Your task to perform on an android device: check data usage Image 0: 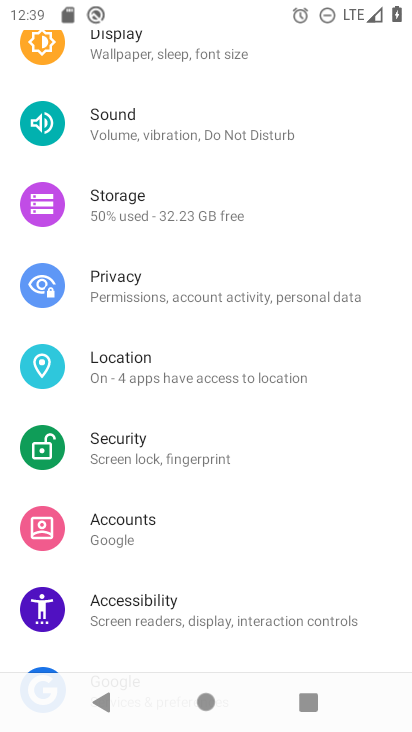
Step 0: press home button
Your task to perform on an android device: check data usage Image 1: 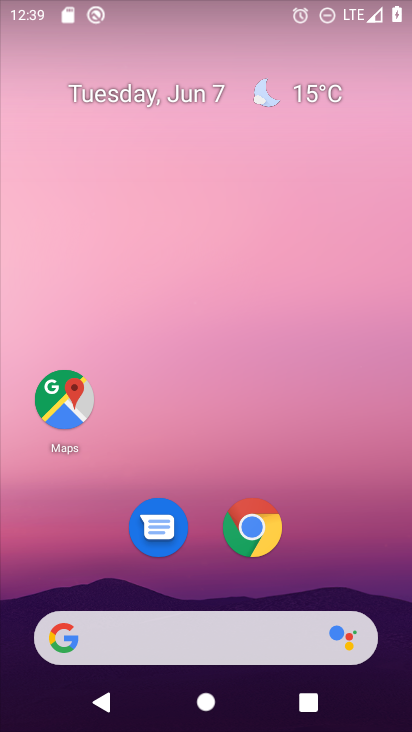
Step 1: drag from (363, 536) to (367, 122)
Your task to perform on an android device: check data usage Image 2: 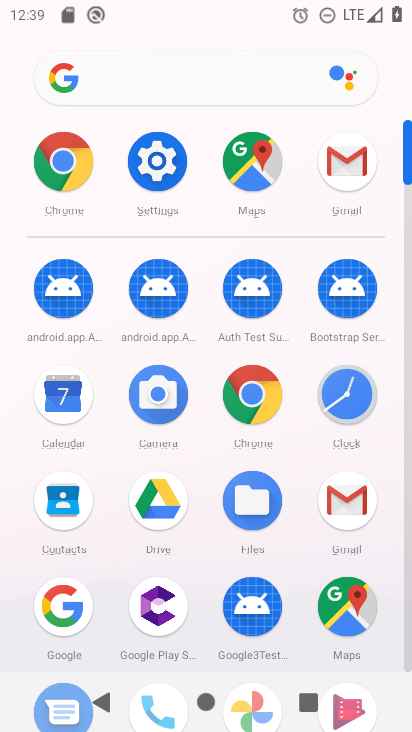
Step 2: click (160, 170)
Your task to perform on an android device: check data usage Image 3: 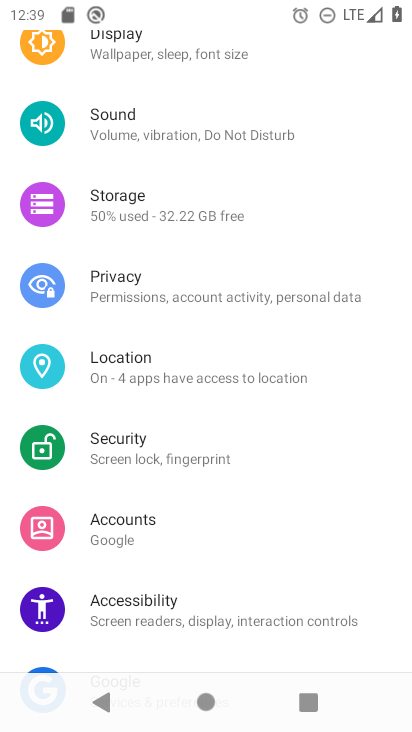
Step 3: drag from (325, 488) to (332, 298)
Your task to perform on an android device: check data usage Image 4: 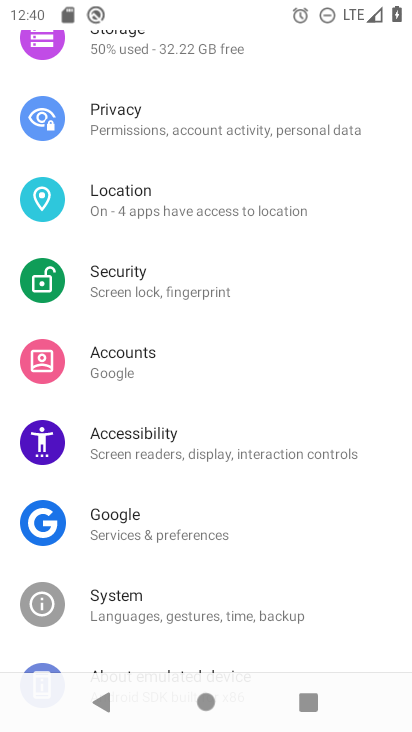
Step 4: drag from (328, 531) to (337, 366)
Your task to perform on an android device: check data usage Image 5: 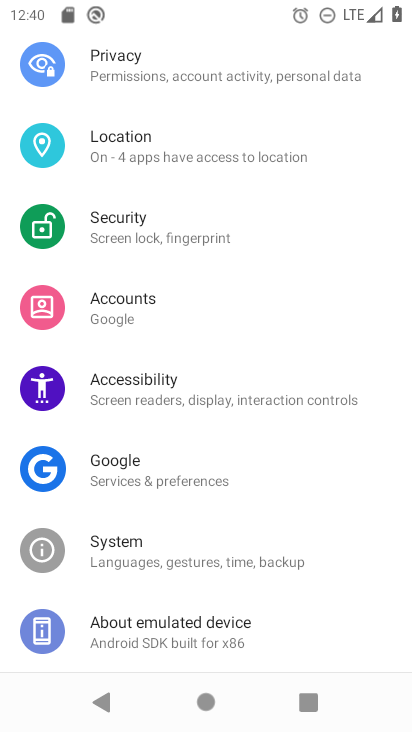
Step 5: drag from (356, 249) to (370, 384)
Your task to perform on an android device: check data usage Image 6: 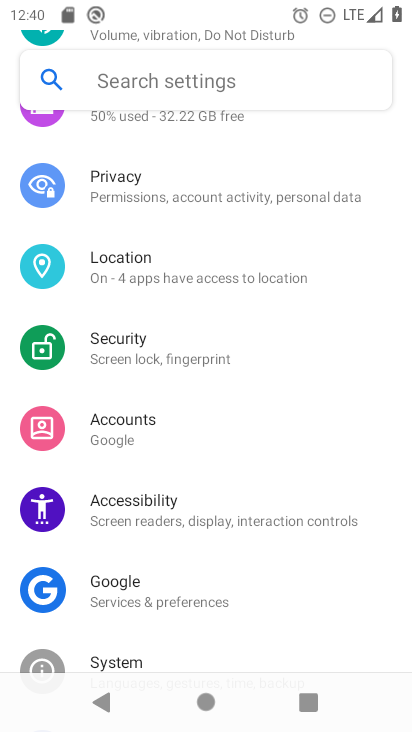
Step 6: drag from (371, 219) to (375, 359)
Your task to perform on an android device: check data usage Image 7: 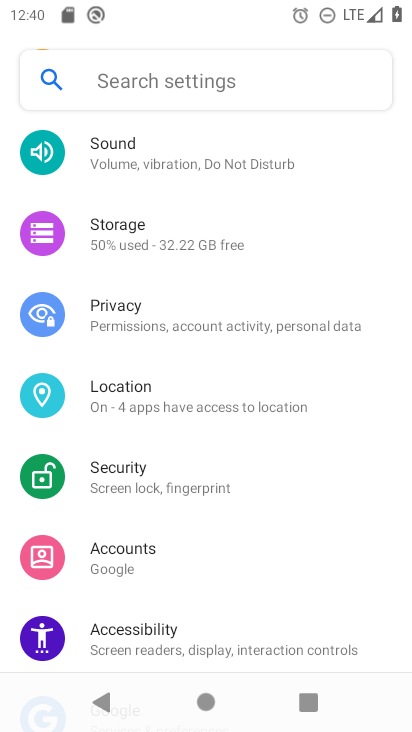
Step 7: drag from (351, 199) to (358, 382)
Your task to perform on an android device: check data usage Image 8: 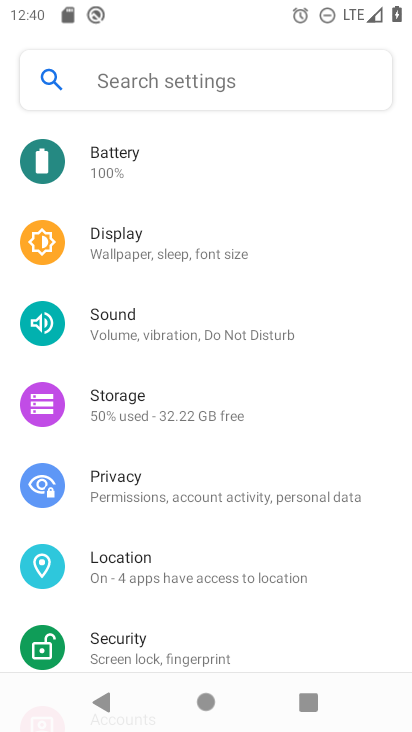
Step 8: drag from (344, 247) to (348, 331)
Your task to perform on an android device: check data usage Image 9: 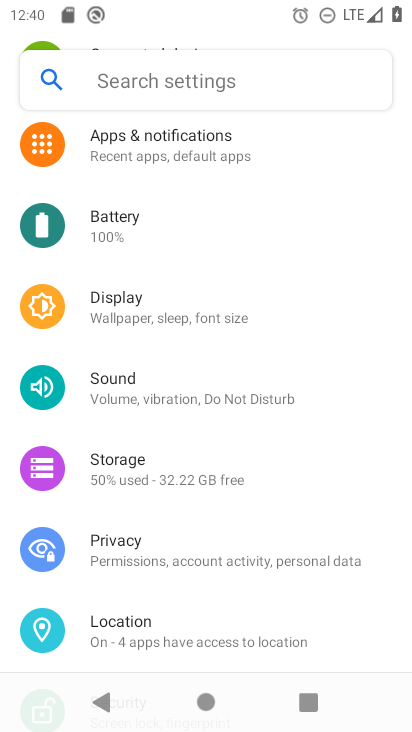
Step 9: drag from (338, 245) to (340, 392)
Your task to perform on an android device: check data usage Image 10: 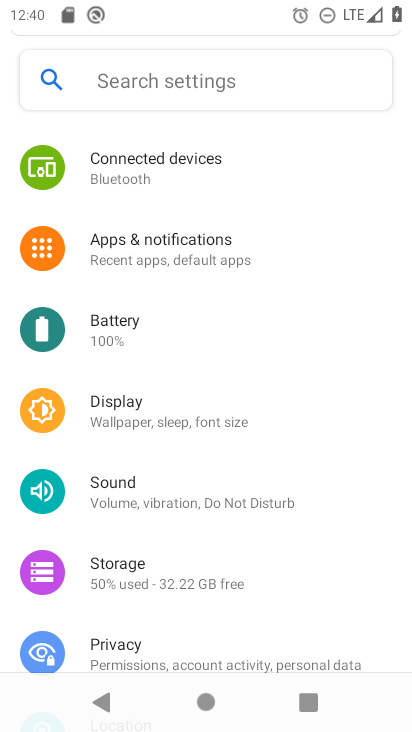
Step 10: drag from (341, 215) to (340, 364)
Your task to perform on an android device: check data usage Image 11: 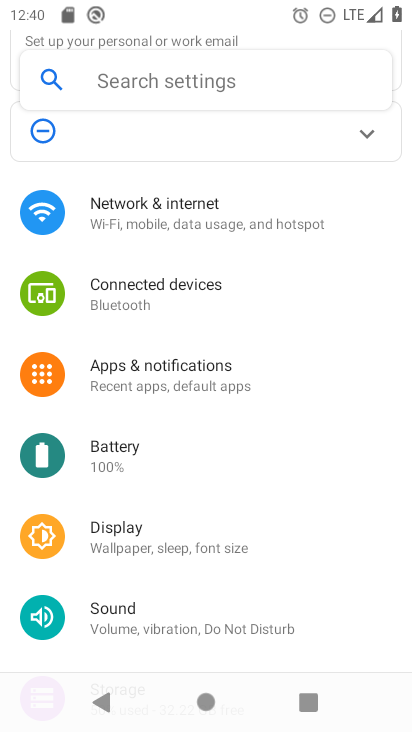
Step 11: click (306, 209)
Your task to perform on an android device: check data usage Image 12: 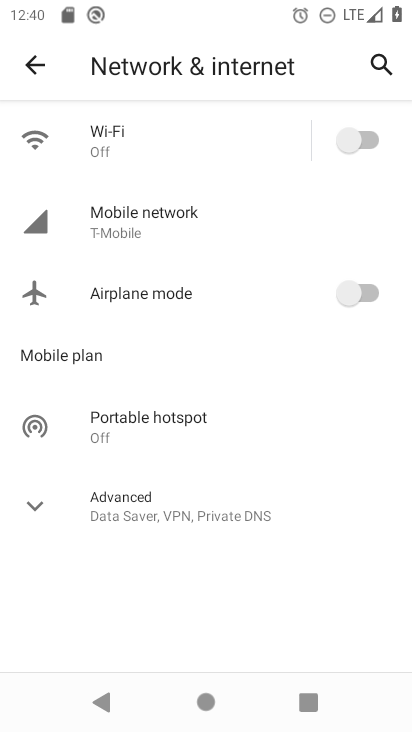
Step 12: click (165, 227)
Your task to perform on an android device: check data usage Image 13: 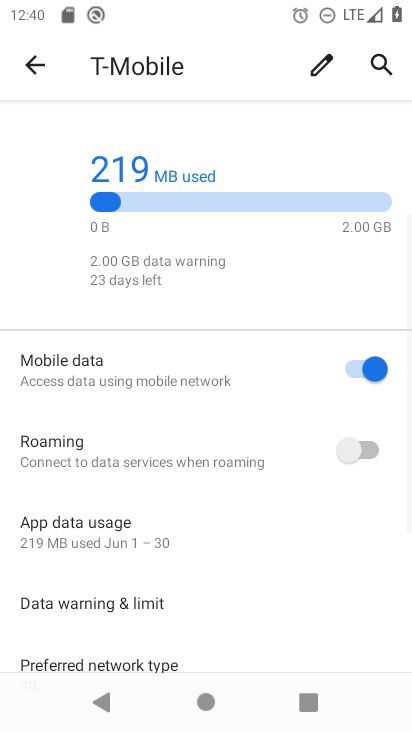
Step 13: drag from (254, 461) to (265, 312)
Your task to perform on an android device: check data usage Image 14: 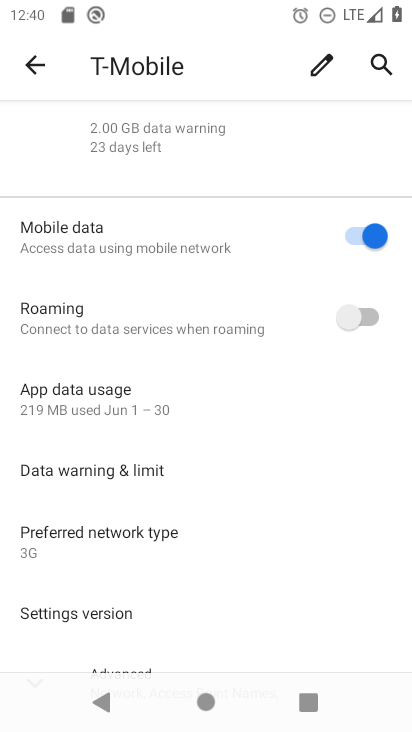
Step 14: drag from (262, 450) to (266, 308)
Your task to perform on an android device: check data usage Image 15: 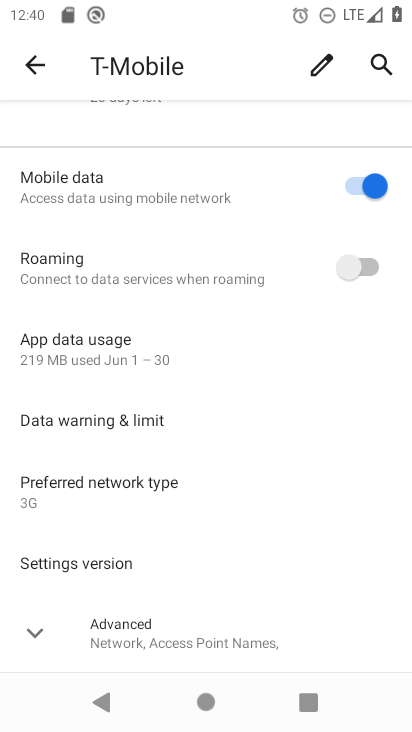
Step 15: click (150, 349)
Your task to perform on an android device: check data usage Image 16: 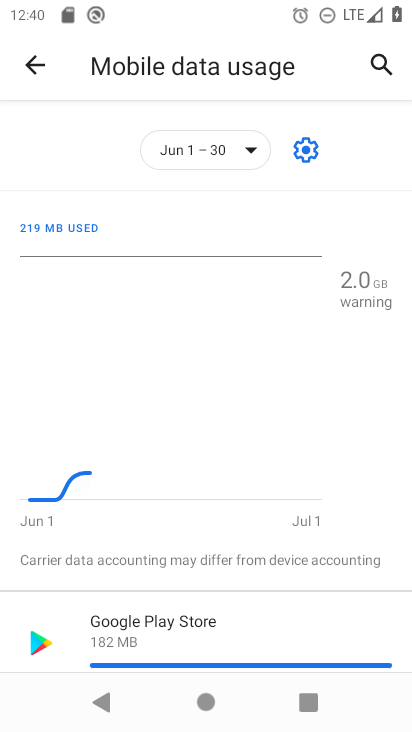
Step 16: task complete